Your task to perform on an android device: Go to Amazon Image 0: 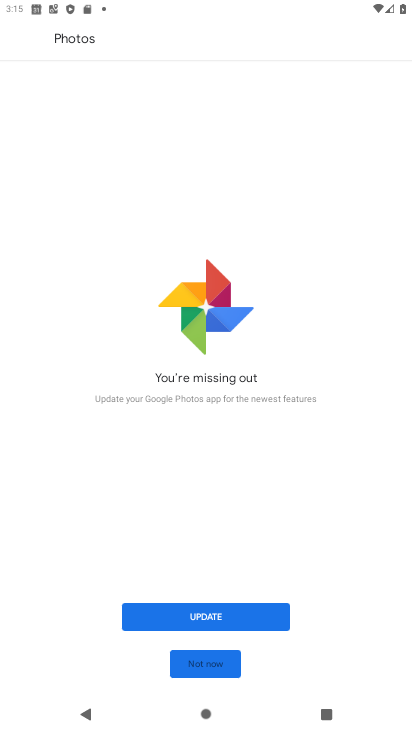
Step 0: press home button
Your task to perform on an android device: Go to Amazon Image 1: 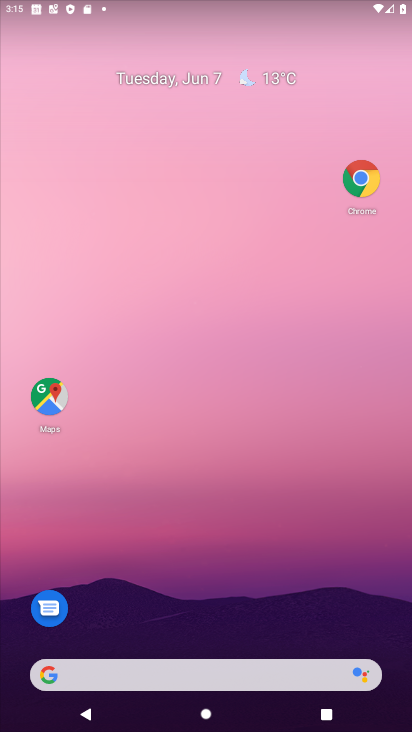
Step 1: drag from (203, 635) to (292, 127)
Your task to perform on an android device: Go to Amazon Image 2: 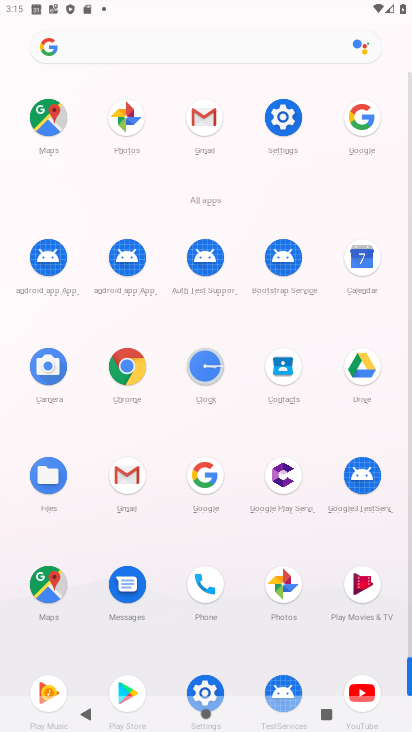
Step 2: click (128, 372)
Your task to perform on an android device: Go to Amazon Image 3: 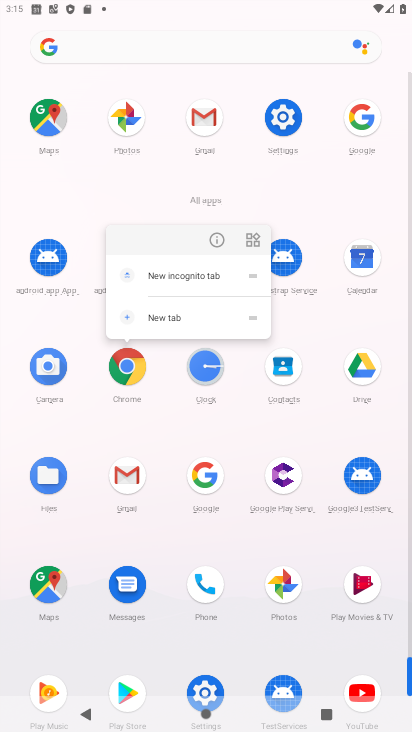
Step 3: click (129, 374)
Your task to perform on an android device: Go to Amazon Image 4: 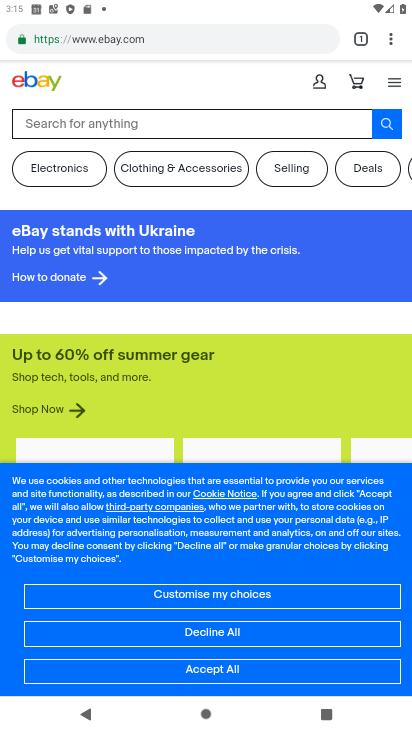
Step 4: drag from (391, 24) to (336, 123)
Your task to perform on an android device: Go to Amazon Image 5: 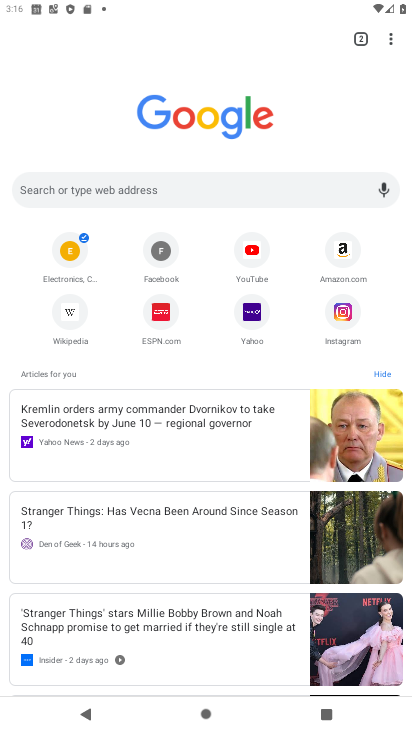
Step 5: click (341, 270)
Your task to perform on an android device: Go to Amazon Image 6: 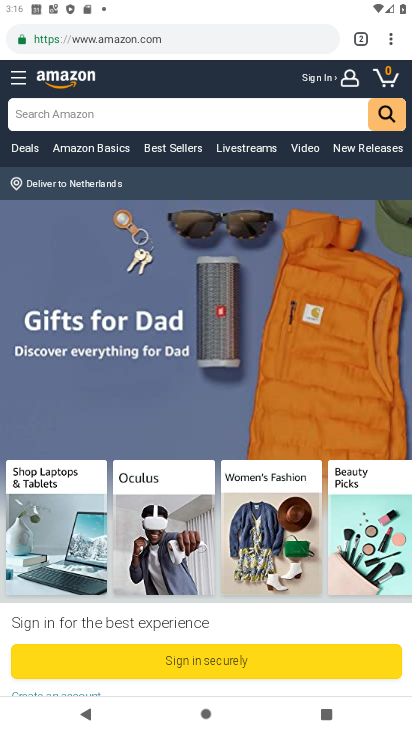
Step 6: task complete